Your task to perform on an android device: Go to Amazon Image 0: 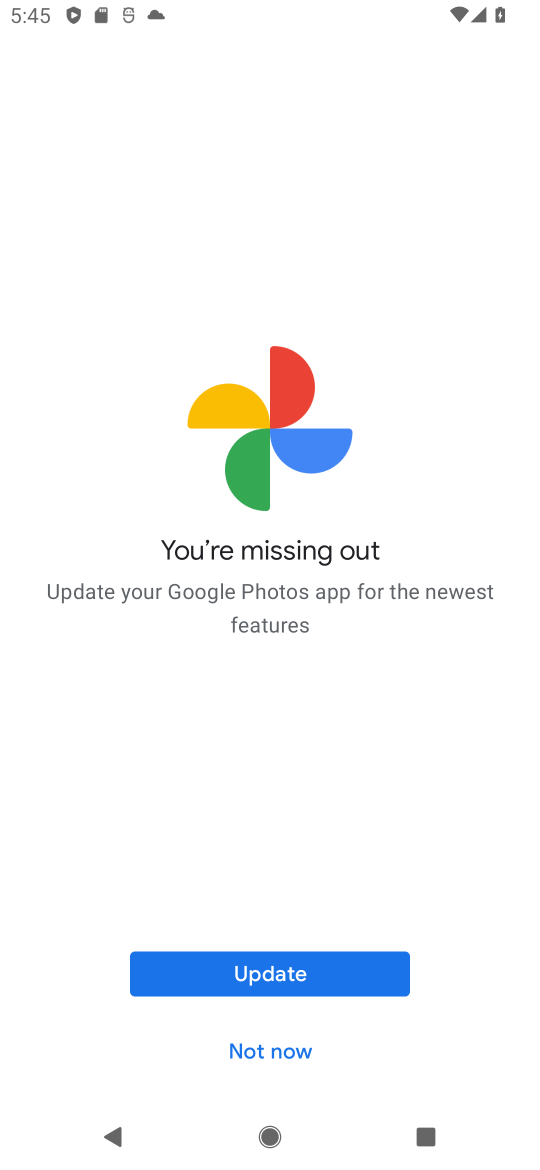
Step 0: press home button
Your task to perform on an android device: Go to Amazon Image 1: 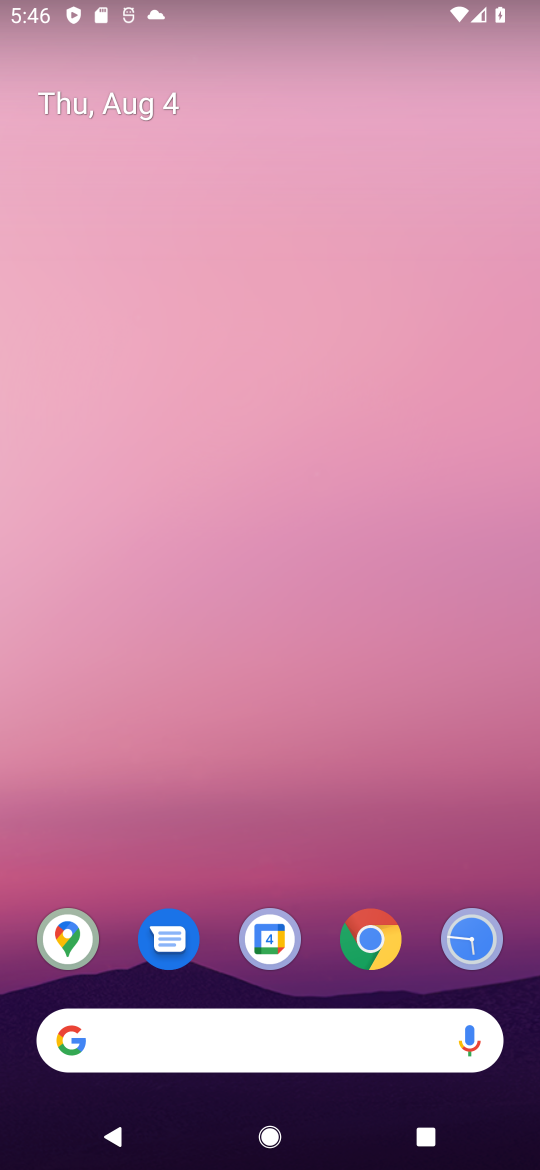
Step 1: drag from (294, 994) to (296, 108)
Your task to perform on an android device: Go to Amazon Image 2: 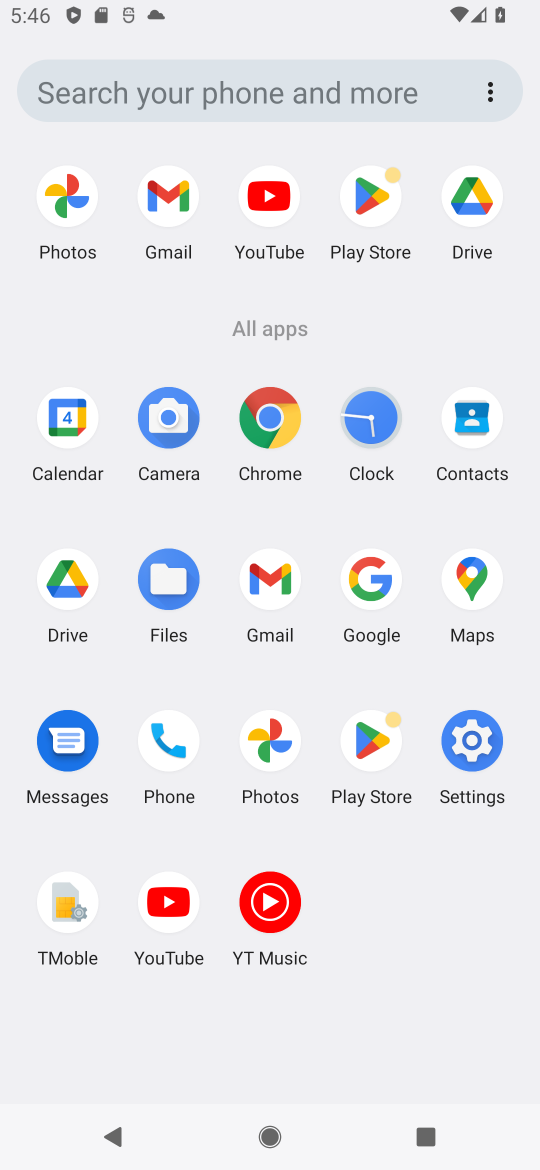
Step 2: click (371, 582)
Your task to perform on an android device: Go to Amazon Image 3: 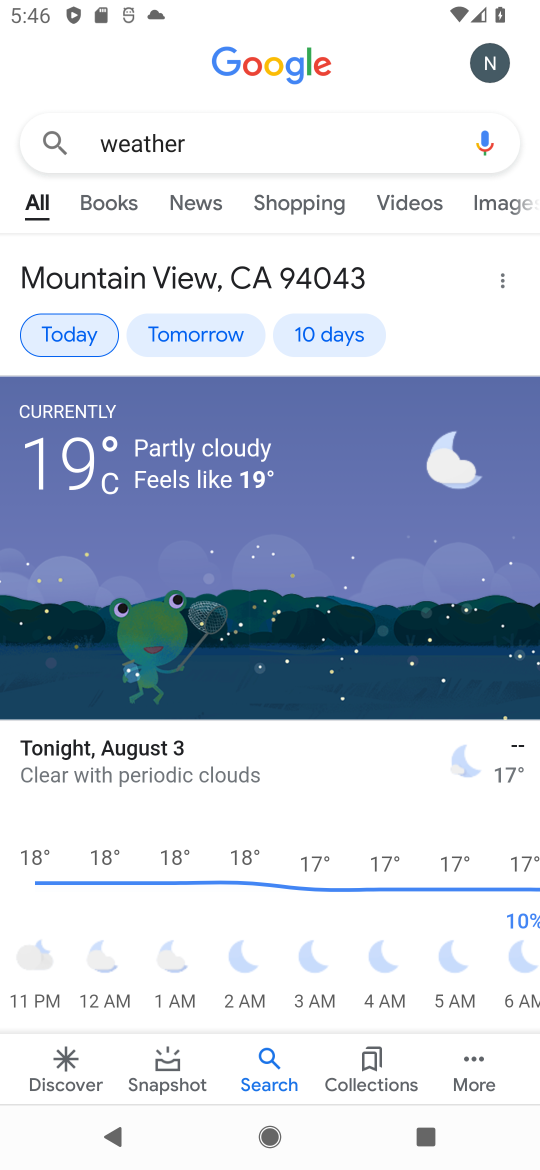
Step 3: click (253, 150)
Your task to perform on an android device: Go to Amazon Image 4: 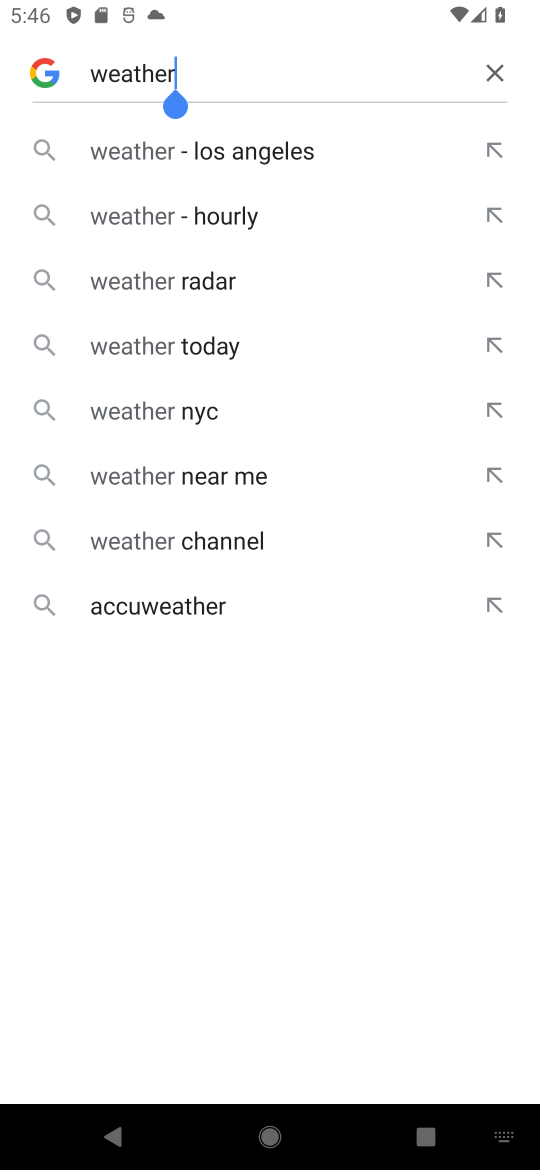
Step 4: click (503, 63)
Your task to perform on an android device: Go to Amazon Image 5: 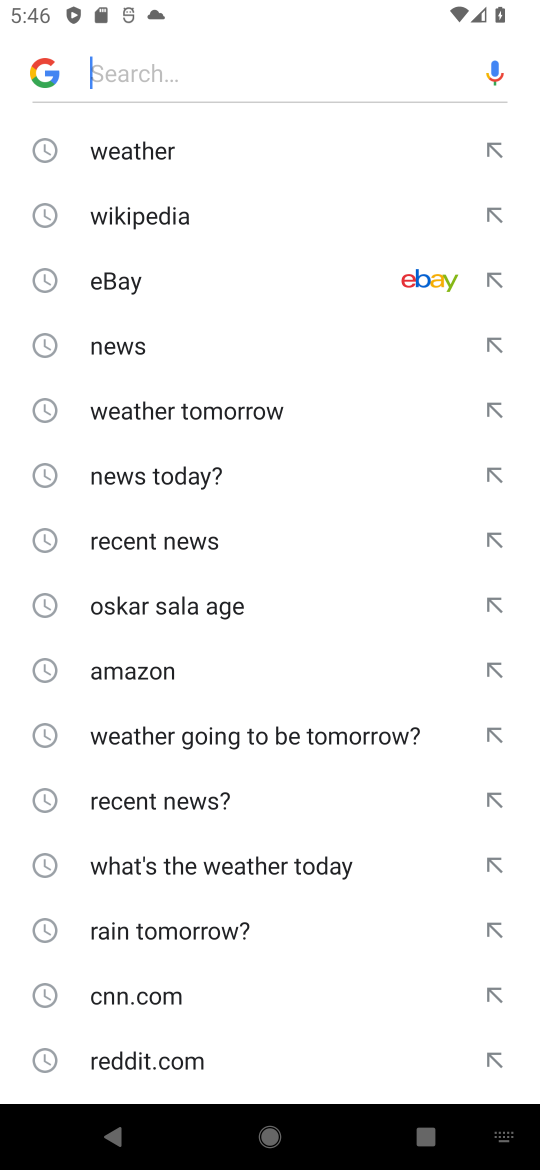
Step 5: click (99, 660)
Your task to perform on an android device: Go to Amazon Image 6: 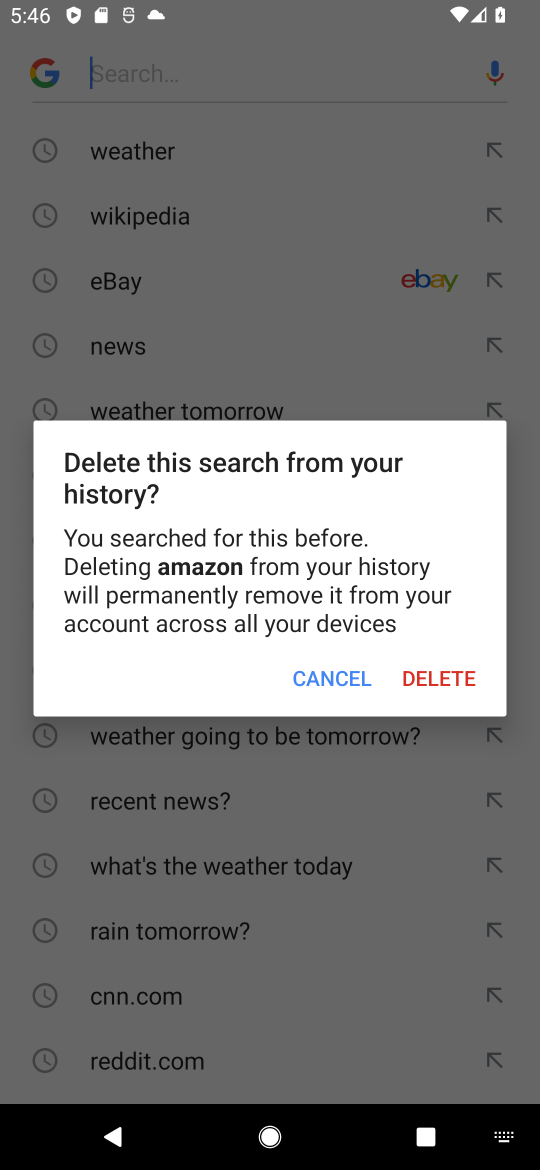
Step 6: click (323, 677)
Your task to perform on an android device: Go to Amazon Image 7: 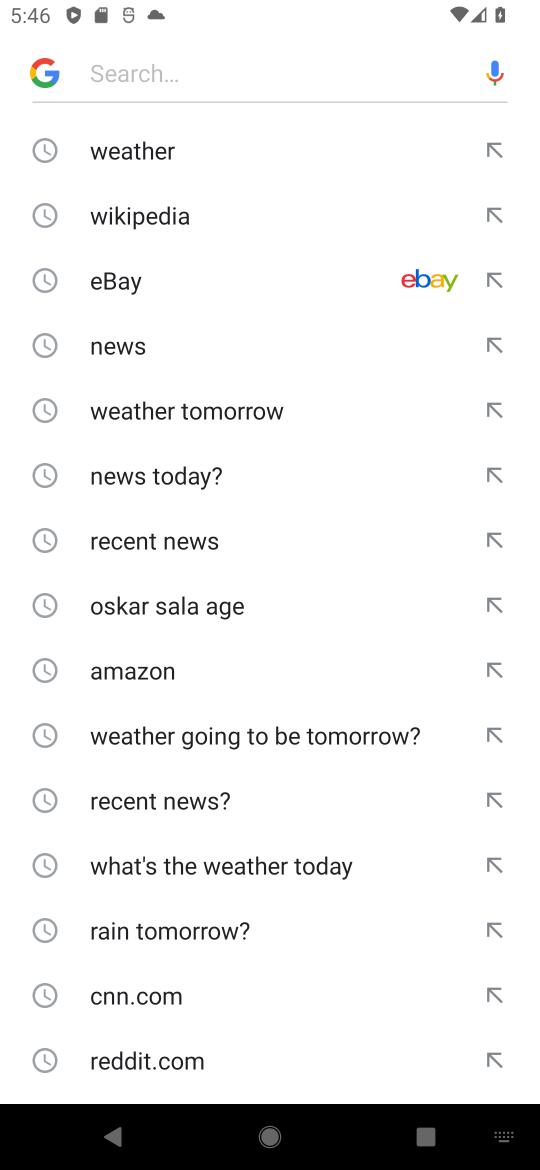
Step 7: click (126, 671)
Your task to perform on an android device: Go to Amazon Image 8: 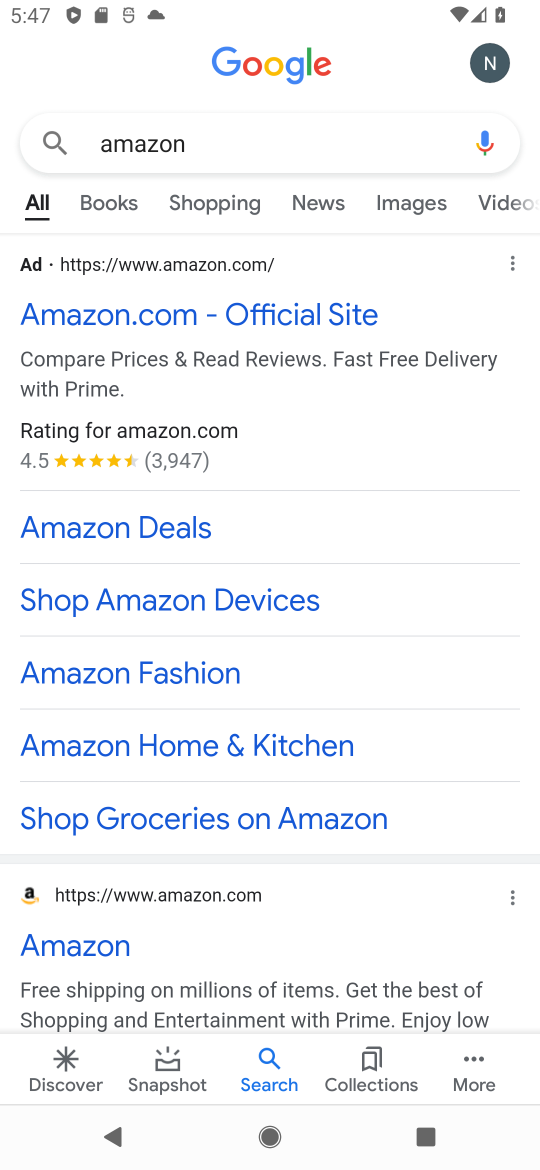
Step 8: click (166, 308)
Your task to perform on an android device: Go to Amazon Image 9: 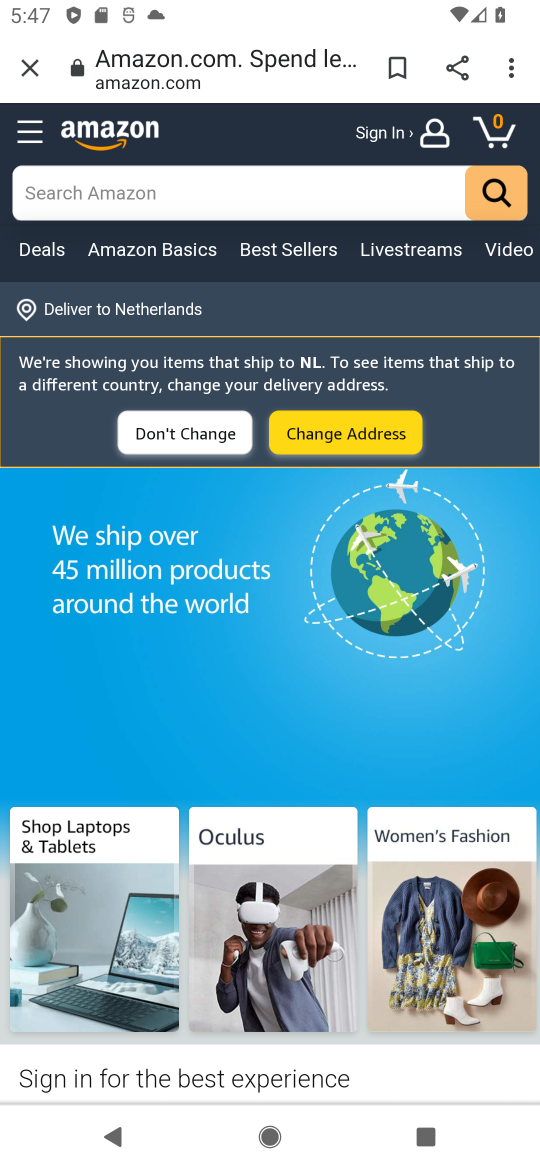
Step 9: task complete